Your task to perform on an android device: turn notification dots on Image 0: 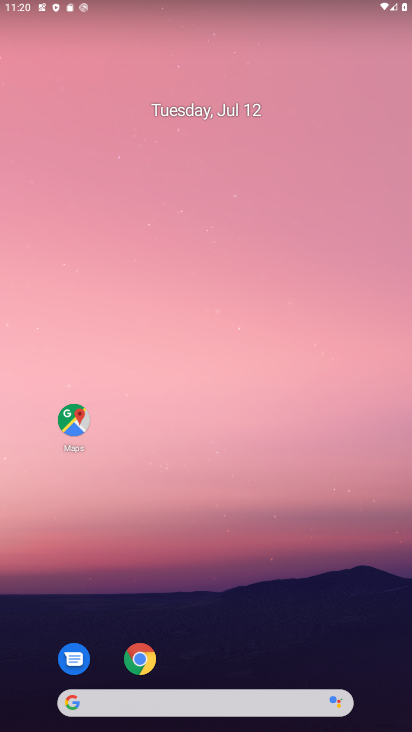
Step 0: drag from (288, 678) to (289, 86)
Your task to perform on an android device: turn notification dots on Image 1: 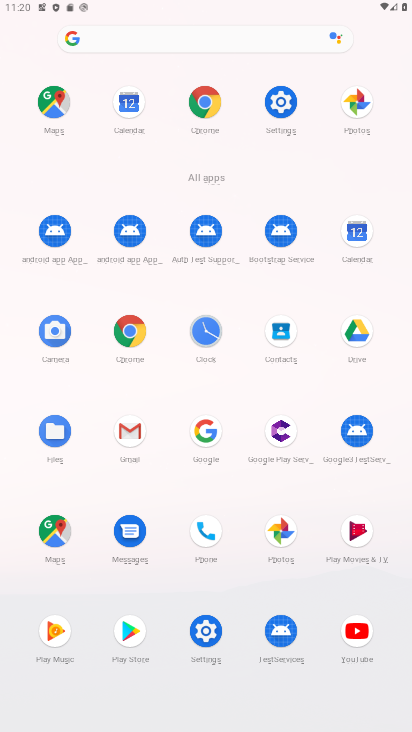
Step 1: click (281, 97)
Your task to perform on an android device: turn notification dots on Image 2: 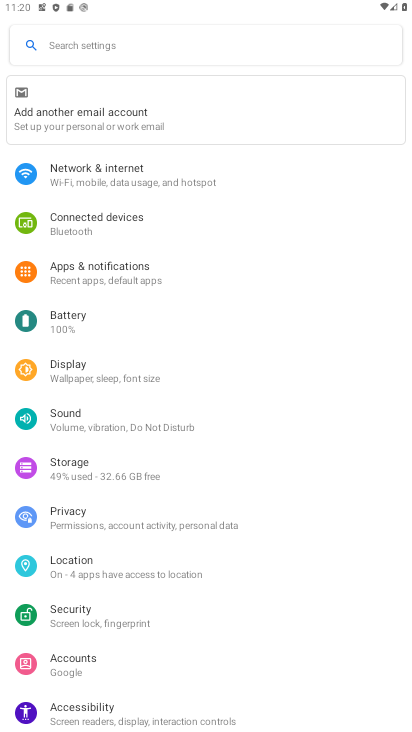
Step 2: click (166, 266)
Your task to perform on an android device: turn notification dots on Image 3: 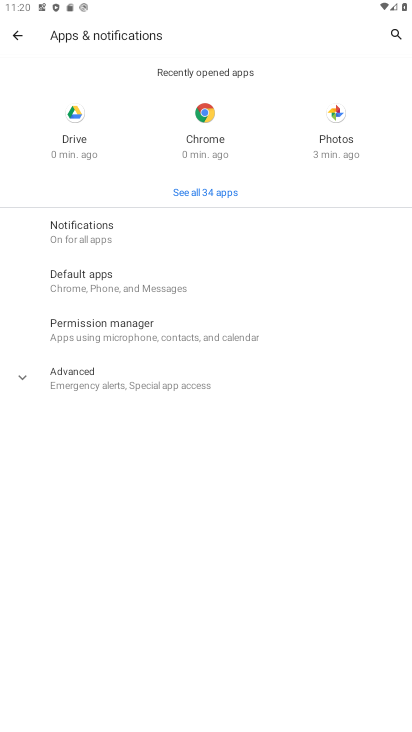
Step 3: click (93, 229)
Your task to perform on an android device: turn notification dots on Image 4: 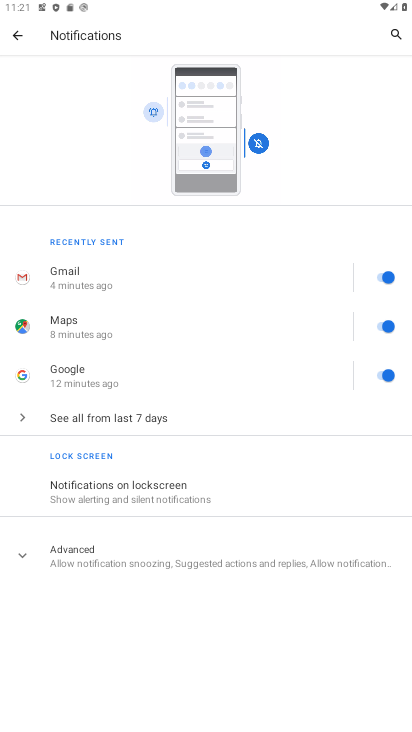
Step 4: click (104, 558)
Your task to perform on an android device: turn notification dots on Image 5: 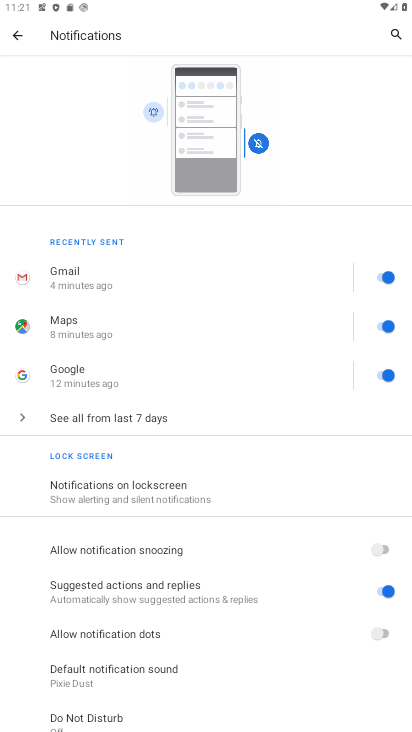
Step 5: click (386, 632)
Your task to perform on an android device: turn notification dots on Image 6: 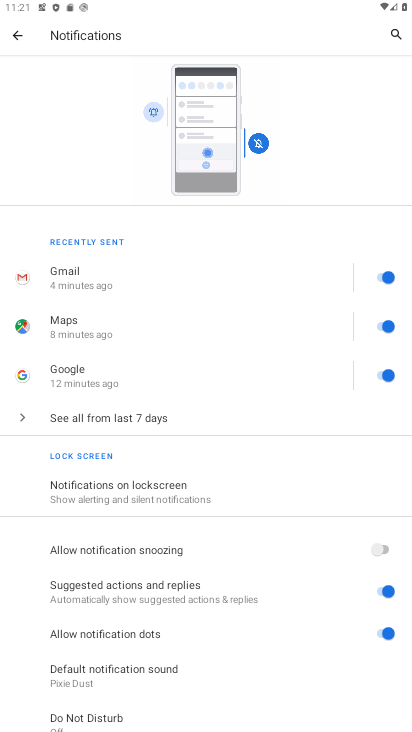
Step 6: task complete